Your task to perform on an android device: Set the phone to "Do not disturb". Image 0: 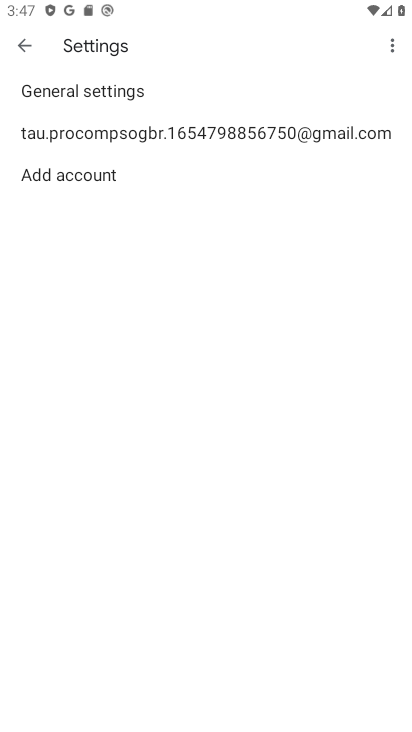
Step 0: press home button
Your task to perform on an android device: Set the phone to "Do not disturb". Image 1: 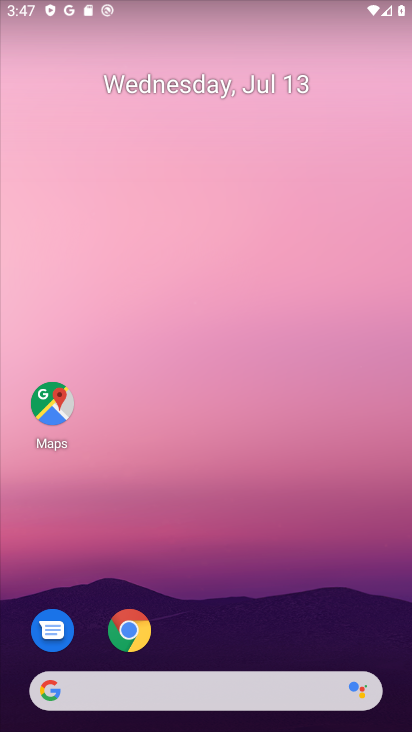
Step 1: drag from (224, 482) to (187, 16)
Your task to perform on an android device: Set the phone to "Do not disturb". Image 2: 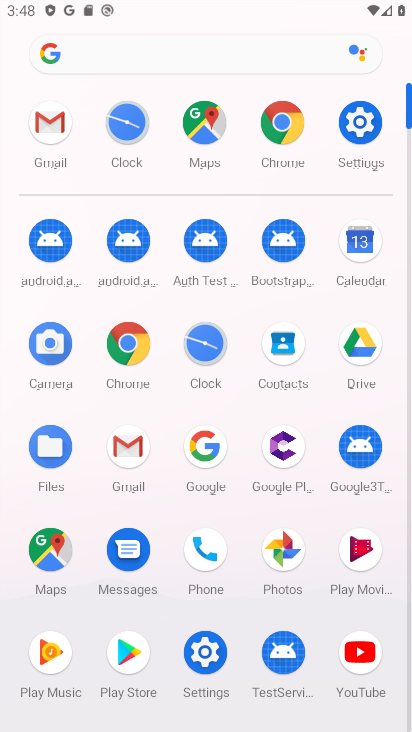
Step 2: click (360, 124)
Your task to perform on an android device: Set the phone to "Do not disturb". Image 3: 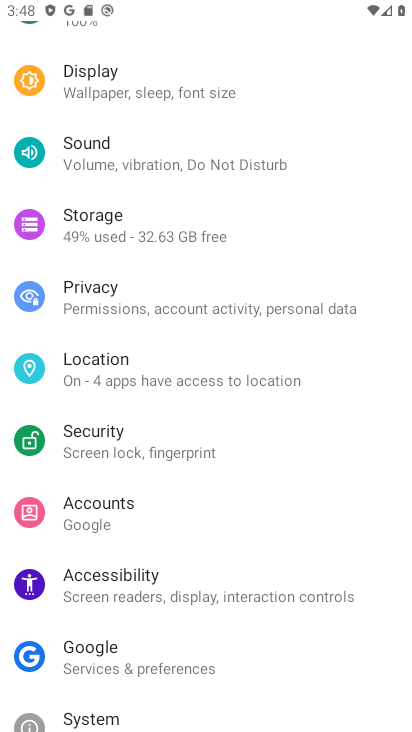
Step 3: click (104, 160)
Your task to perform on an android device: Set the phone to "Do not disturb". Image 4: 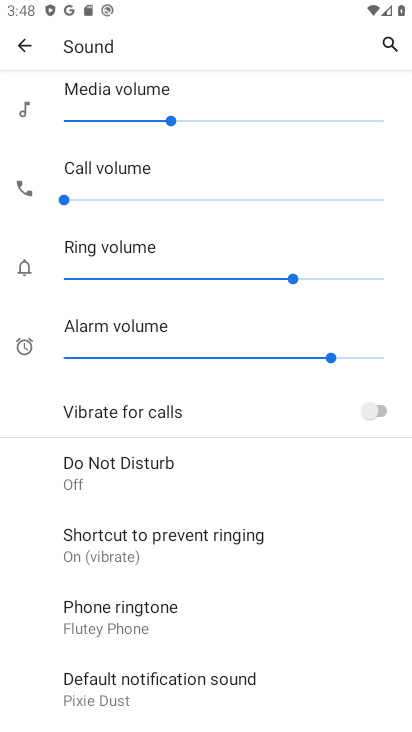
Step 4: click (88, 470)
Your task to perform on an android device: Set the phone to "Do not disturb". Image 5: 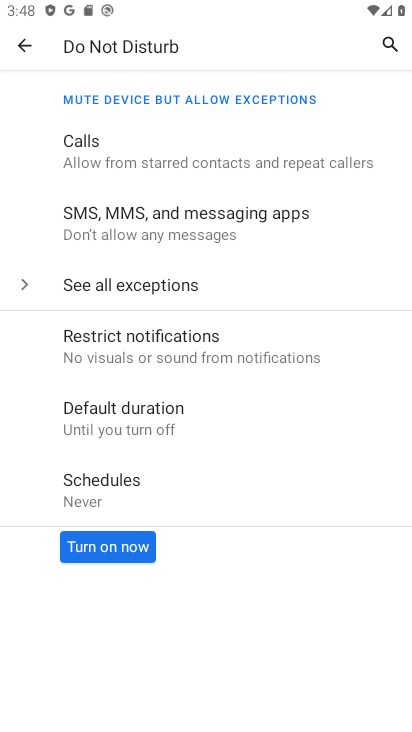
Step 5: click (109, 548)
Your task to perform on an android device: Set the phone to "Do not disturb". Image 6: 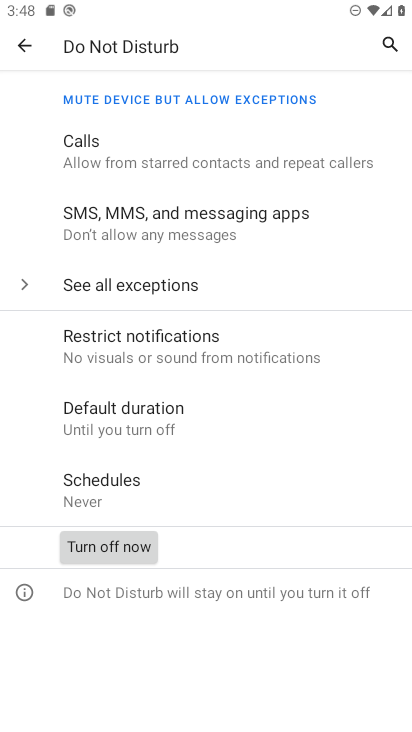
Step 6: task complete